Your task to perform on an android device: stop showing notifications on the lock screen Image 0: 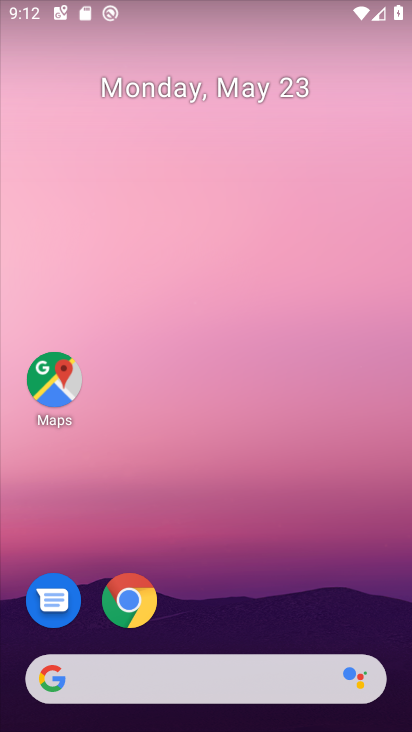
Step 0: drag from (187, 719) to (152, 54)
Your task to perform on an android device: stop showing notifications on the lock screen Image 1: 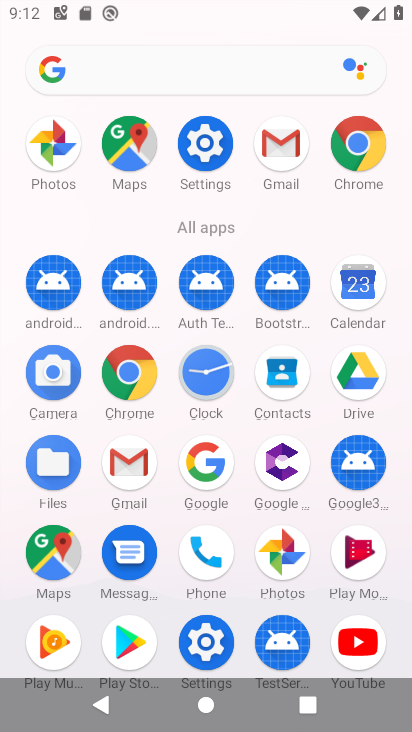
Step 1: click (200, 144)
Your task to perform on an android device: stop showing notifications on the lock screen Image 2: 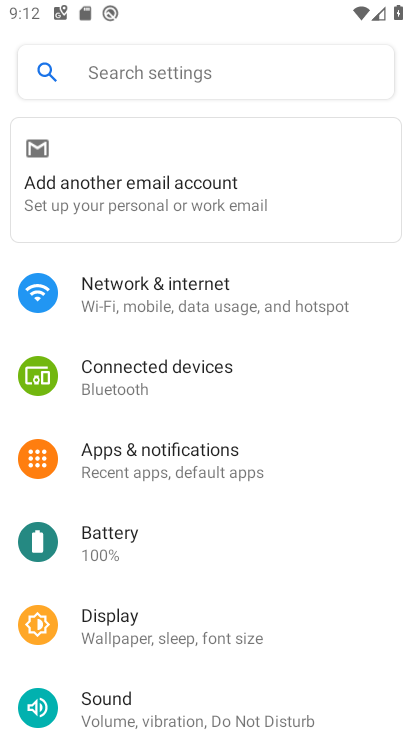
Step 2: click (164, 457)
Your task to perform on an android device: stop showing notifications on the lock screen Image 3: 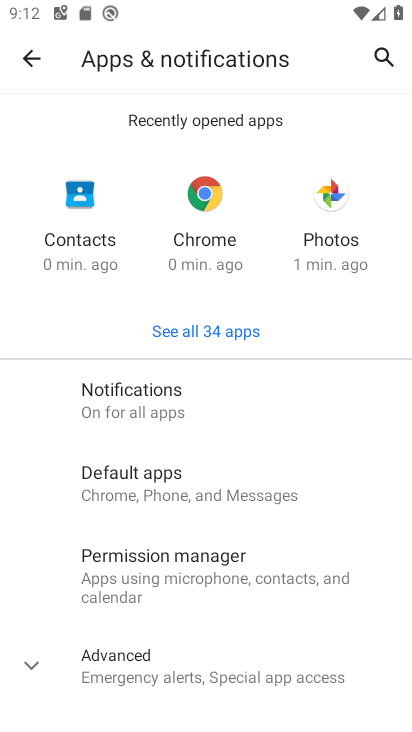
Step 3: click (142, 402)
Your task to perform on an android device: stop showing notifications on the lock screen Image 4: 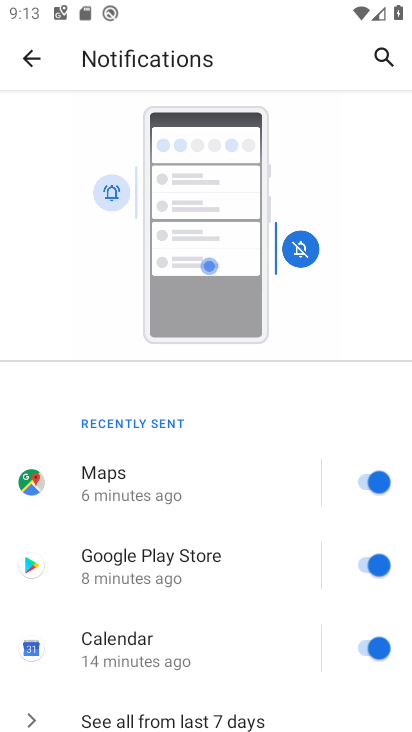
Step 4: task complete